Your task to perform on an android device: turn on sleep mode Image 0: 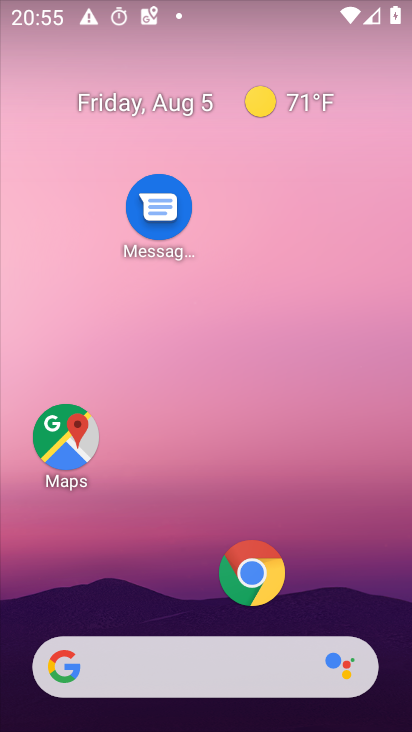
Step 0: press home button
Your task to perform on an android device: turn on sleep mode Image 1: 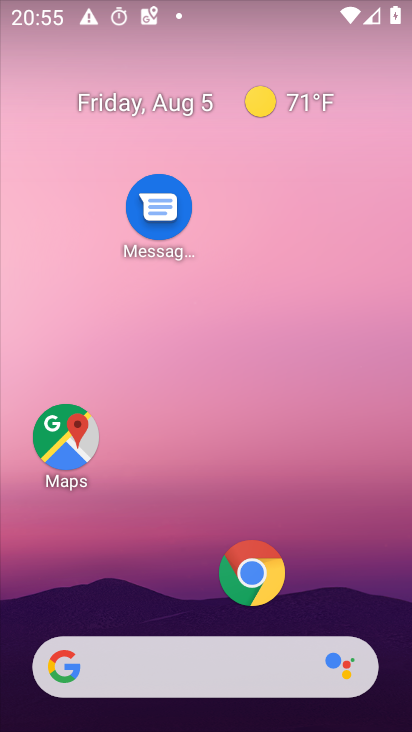
Step 1: drag from (194, 608) to (237, 137)
Your task to perform on an android device: turn on sleep mode Image 2: 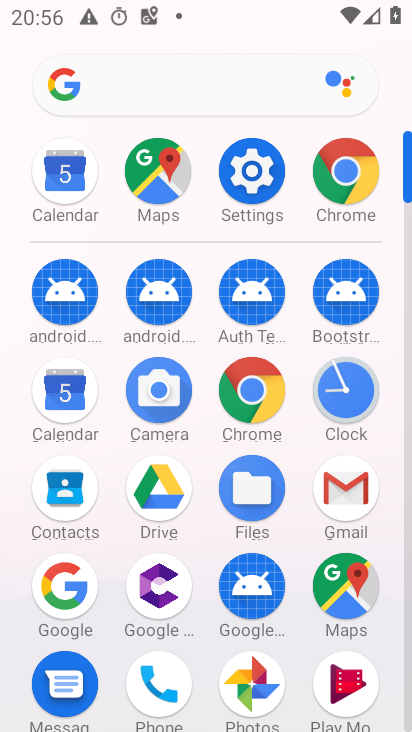
Step 2: click (256, 164)
Your task to perform on an android device: turn on sleep mode Image 3: 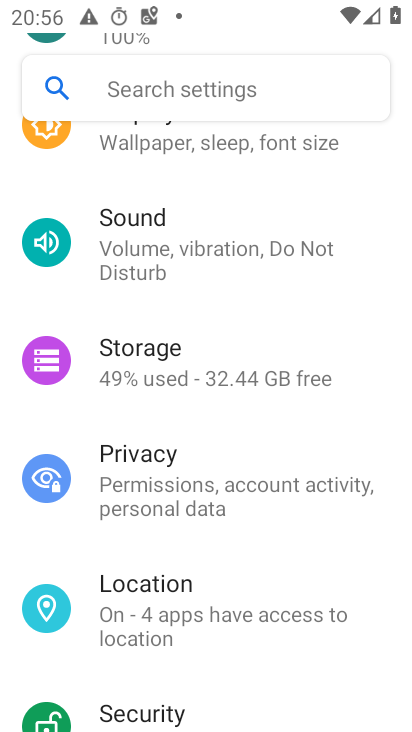
Step 3: click (190, 147)
Your task to perform on an android device: turn on sleep mode Image 4: 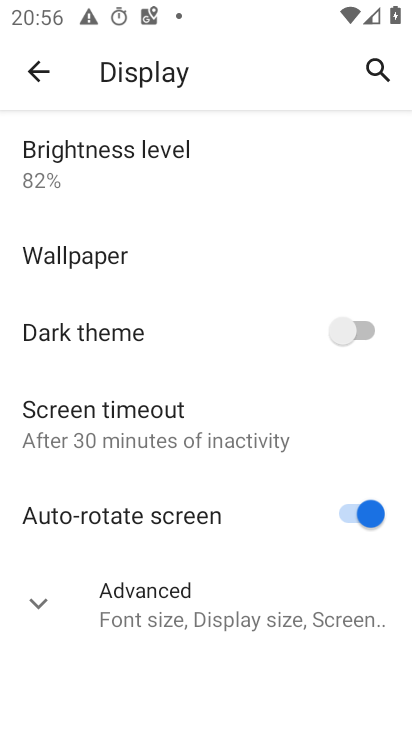
Step 4: click (37, 590)
Your task to perform on an android device: turn on sleep mode Image 5: 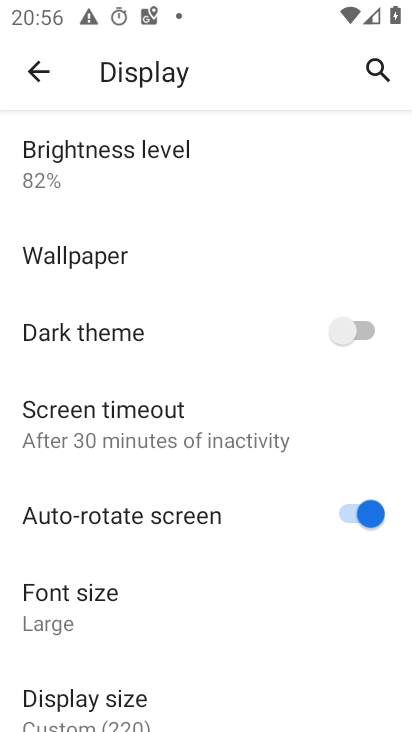
Step 5: task complete